Your task to perform on an android device: Open the phone app and click the voicemail tab. Image 0: 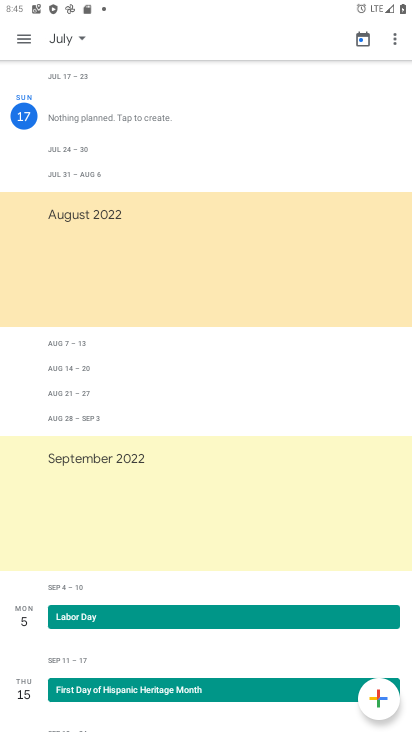
Step 0: press back button
Your task to perform on an android device: Open the phone app and click the voicemail tab. Image 1: 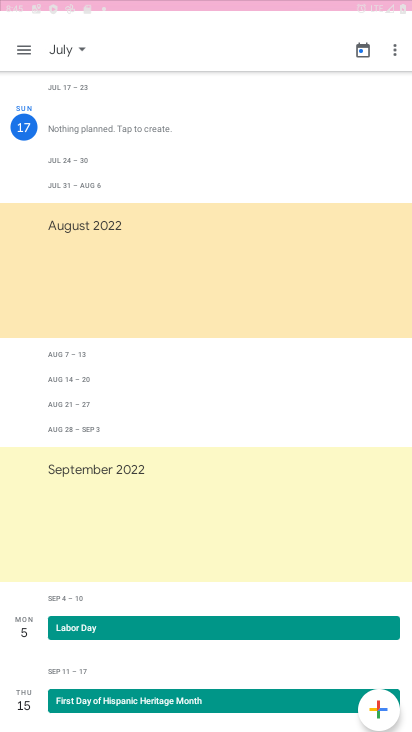
Step 1: press home button
Your task to perform on an android device: Open the phone app and click the voicemail tab. Image 2: 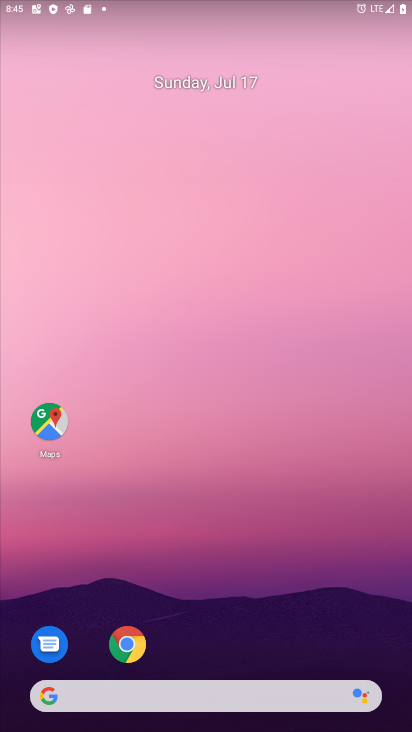
Step 2: drag from (234, 691) to (172, 53)
Your task to perform on an android device: Open the phone app and click the voicemail tab. Image 3: 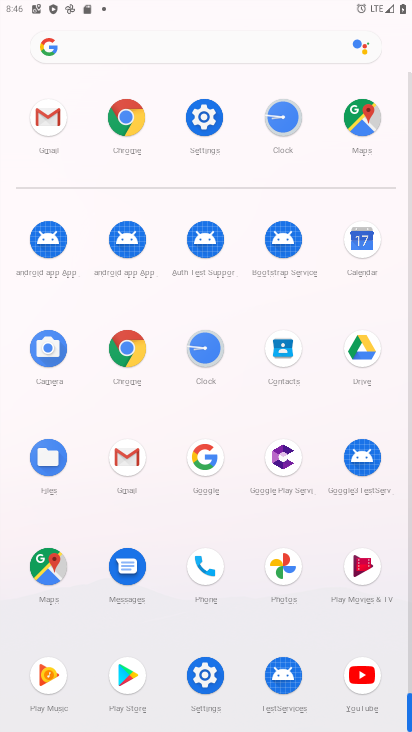
Step 3: click (200, 563)
Your task to perform on an android device: Open the phone app and click the voicemail tab. Image 4: 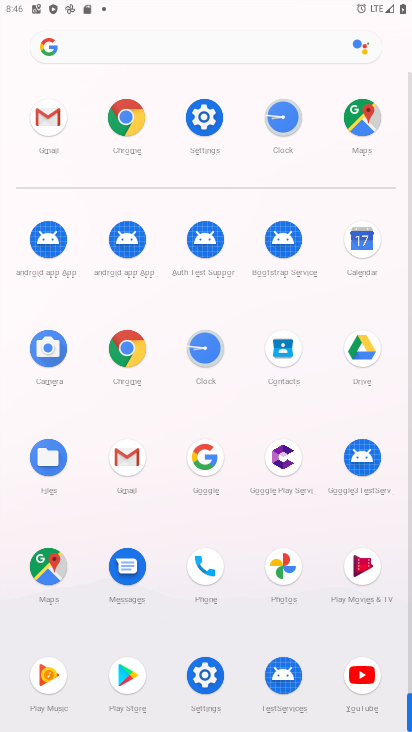
Step 4: click (201, 564)
Your task to perform on an android device: Open the phone app and click the voicemail tab. Image 5: 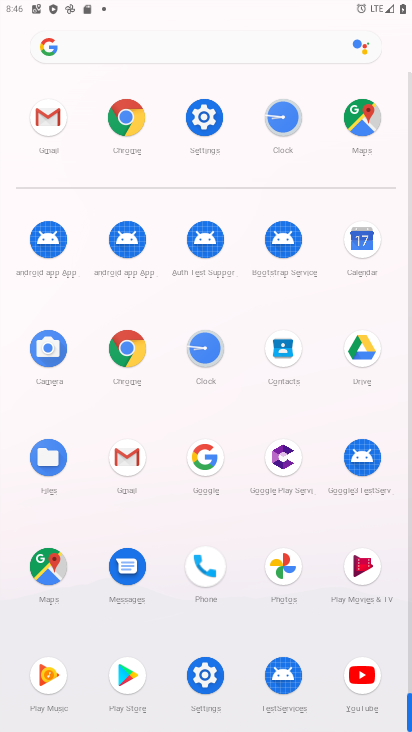
Step 5: click (204, 566)
Your task to perform on an android device: Open the phone app and click the voicemail tab. Image 6: 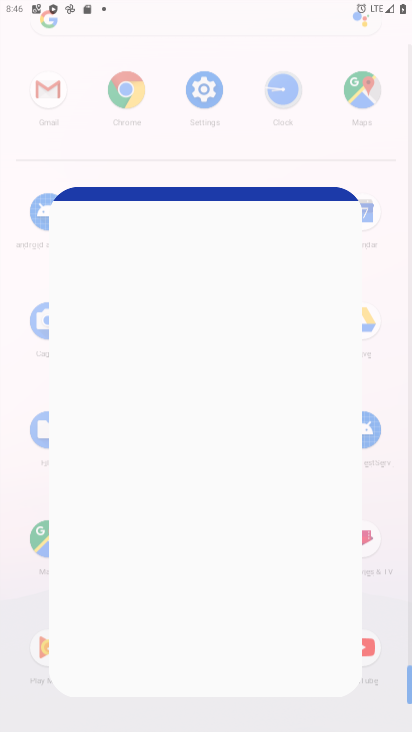
Step 6: click (204, 566)
Your task to perform on an android device: Open the phone app and click the voicemail tab. Image 7: 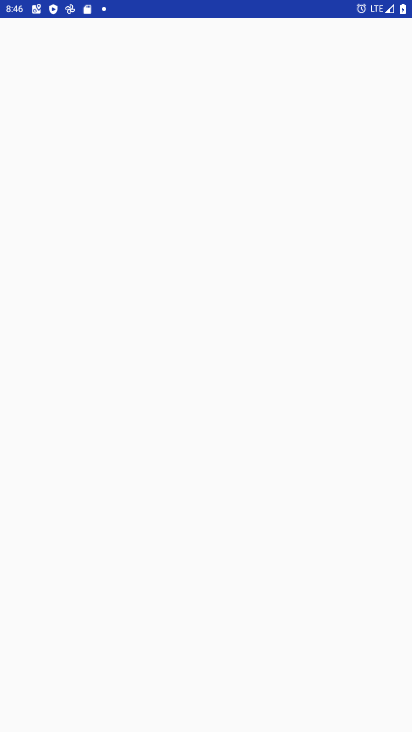
Step 7: click (205, 567)
Your task to perform on an android device: Open the phone app and click the voicemail tab. Image 8: 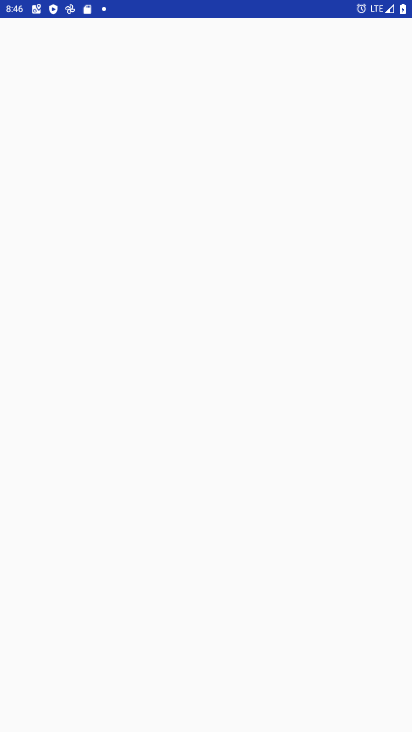
Step 8: click (205, 568)
Your task to perform on an android device: Open the phone app and click the voicemail tab. Image 9: 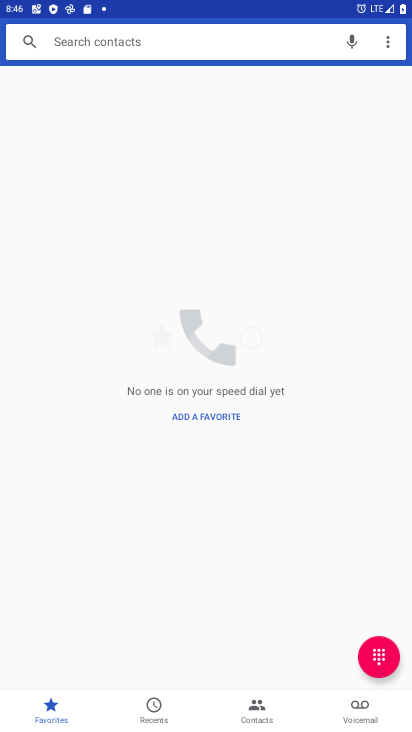
Step 9: click (353, 687)
Your task to perform on an android device: Open the phone app and click the voicemail tab. Image 10: 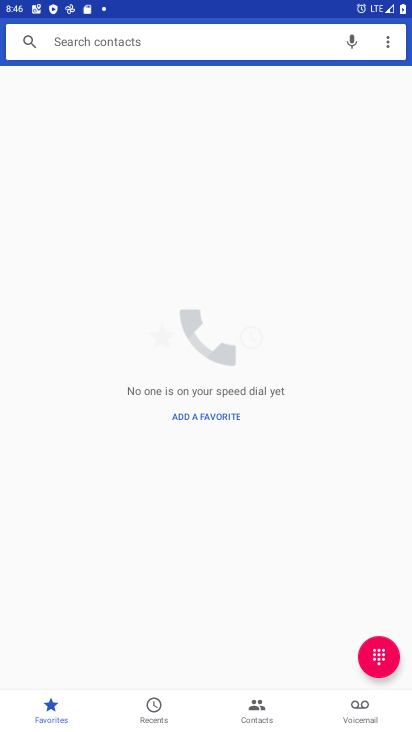
Step 10: click (354, 698)
Your task to perform on an android device: Open the phone app and click the voicemail tab. Image 11: 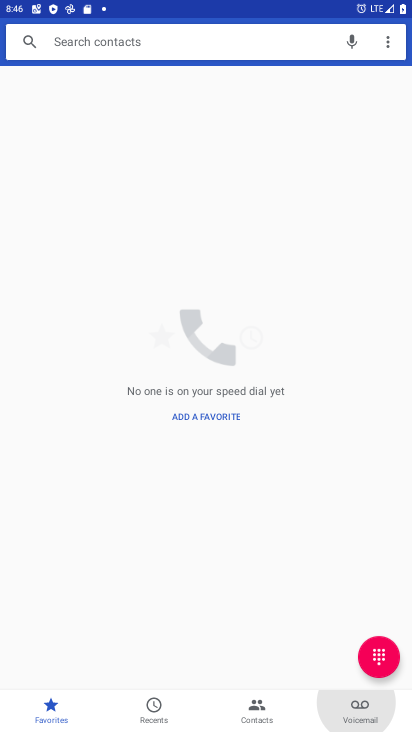
Step 11: click (352, 701)
Your task to perform on an android device: Open the phone app and click the voicemail tab. Image 12: 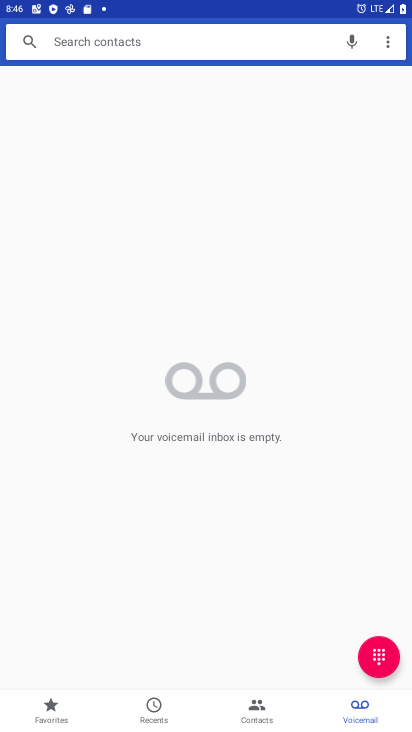
Step 12: click (355, 710)
Your task to perform on an android device: Open the phone app and click the voicemail tab. Image 13: 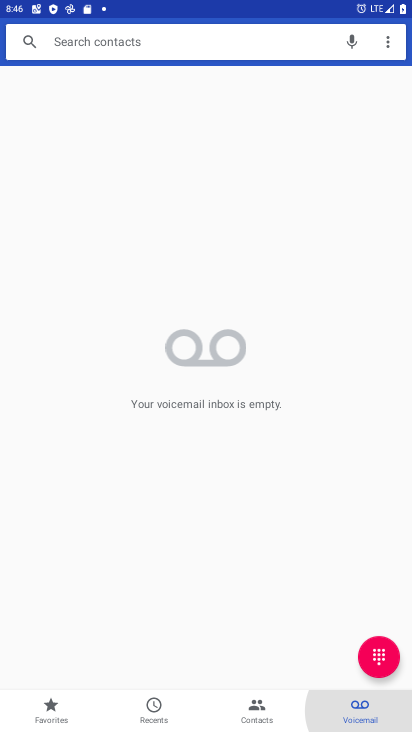
Step 13: click (350, 714)
Your task to perform on an android device: Open the phone app and click the voicemail tab. Image 14: 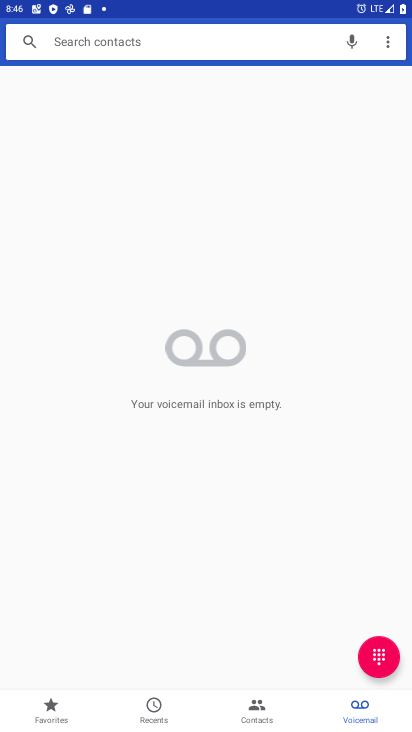
Step 14: task complete